Your task to perform on an android device: snooze an email in the gmail app Image 0: 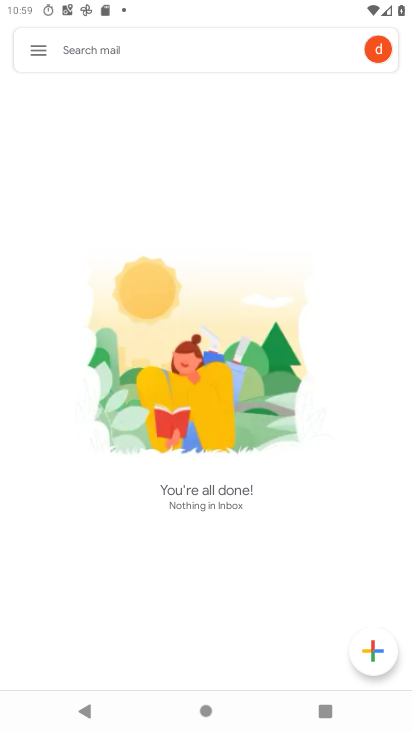
Step 0: press back button
Your task to perform on an android device: snooze an email in the gmail app Image 1: 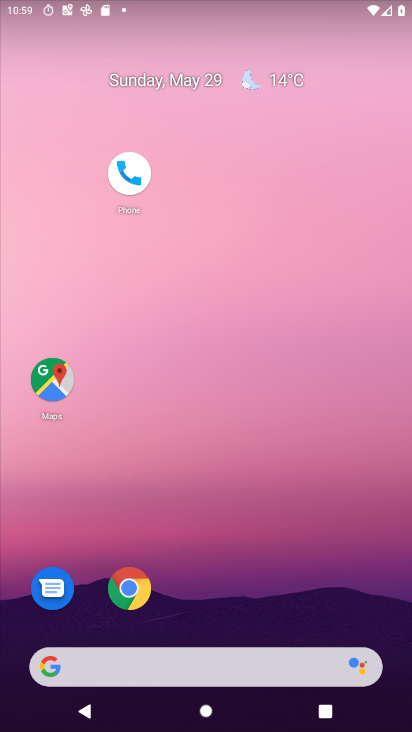
Step 1: drag from (262, 705) to (176, 170)
Your task to perform on an android device: snooze an email in the gmail app Image 2: 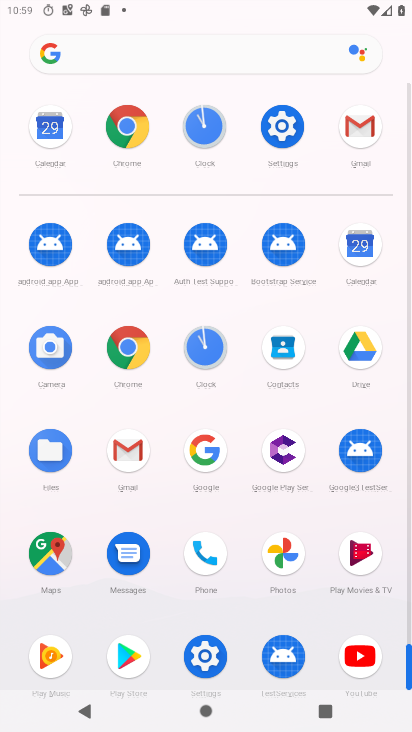
Step 2: click (134, 450)
Your task to perform on an android device: snooze an email in the gmail app Image 3: 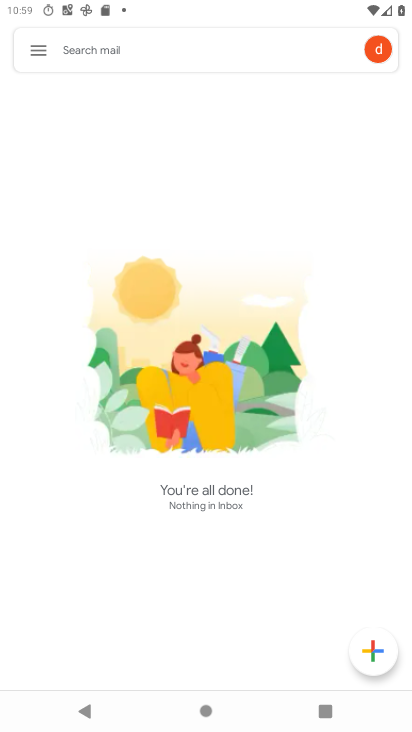
Step 3: click (134, 451)
Your task to perform on an android device: snooze an email in the gmail app Image 4: 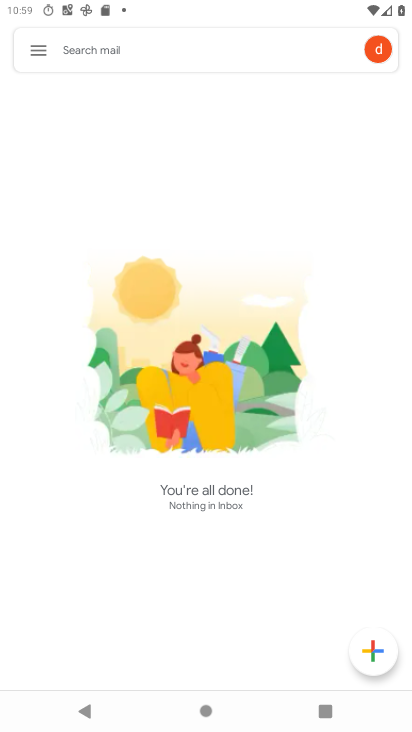
Step 4: click (40, 50)
Your task to perform on an android device: snooze an email in the gmail app Image 5: 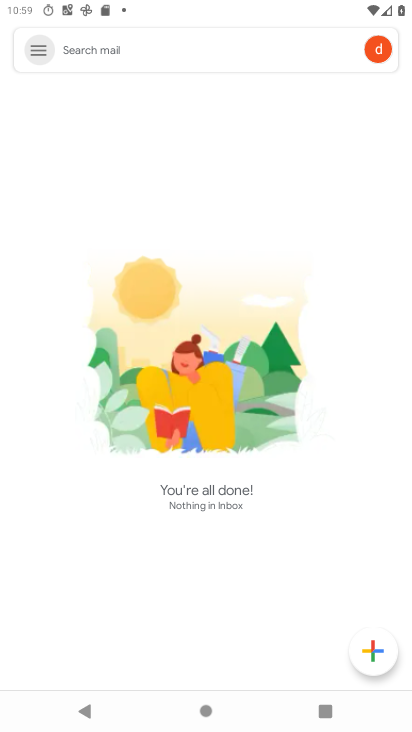
Step 5: click (40, 50)
Your task to perform on an android device: snooze an email in the gmail app Image 6: 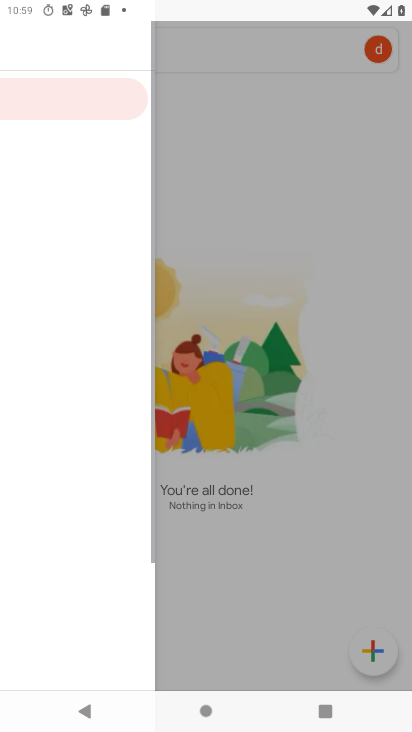
Step 6: click (40, 50)
Your task to perform on an android device: snooze an email in the gmail app Image 7: 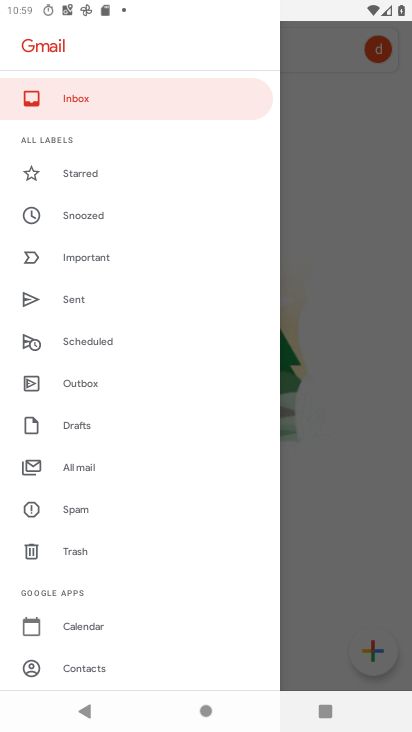
Step 7: click (83, 463)
Your task to perform on an android device: snooze an email in the gmail app Image 8: 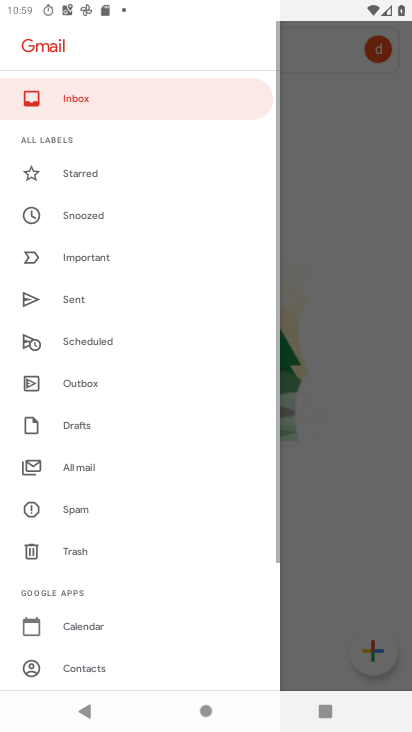
Step 8: click (83, 465)
Your task to perform on an android device: snooze an email in the gmail app Image 9: 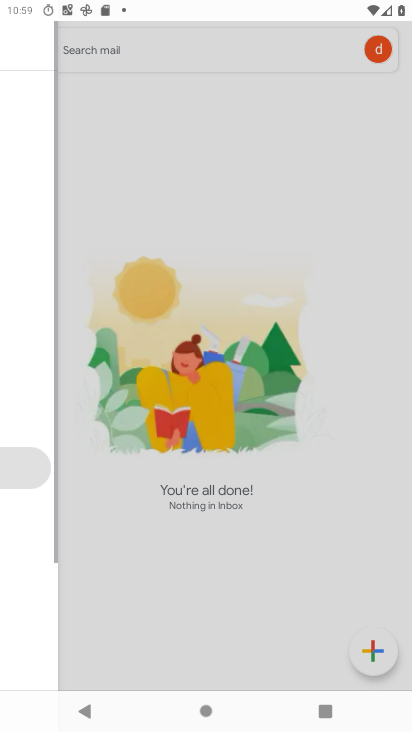
Step 9: click (83, 465)
Your task to perform on an android device: snooze an email in the gmail app Image 10: 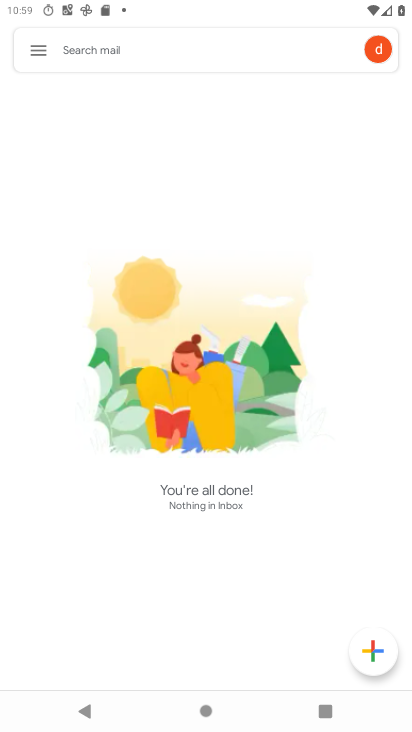
Step 10: click (77, 463)
Your task to perform on an android device: snooze an email in the gmail app Image 11: 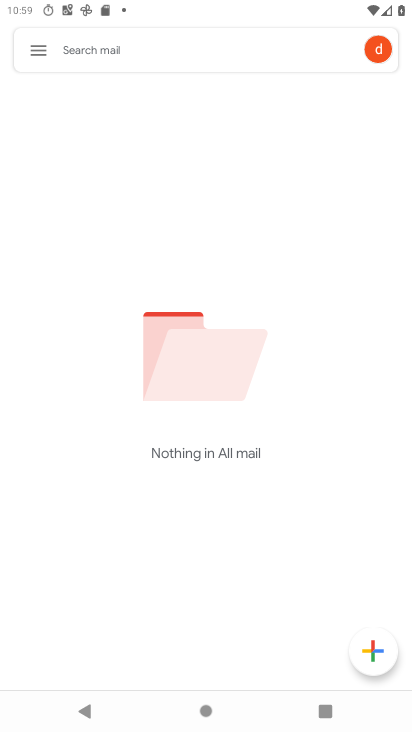
Step 11: task complete